Your task to perform on an android device: change the upload size in google photos Image 0: 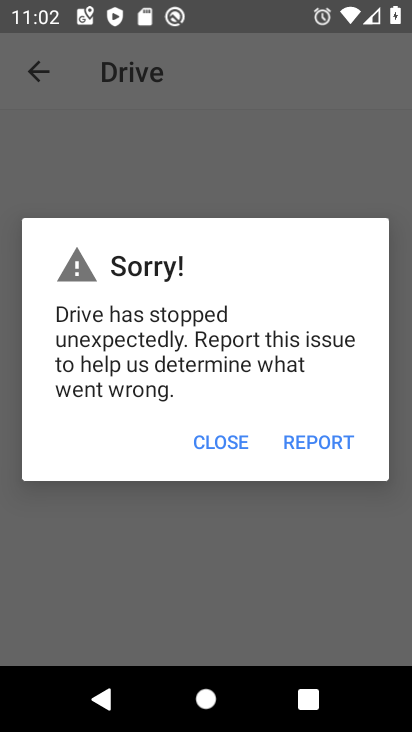
Step 0: press home button
Your task to perform on an android device: change the upload size in google photos Image 1: 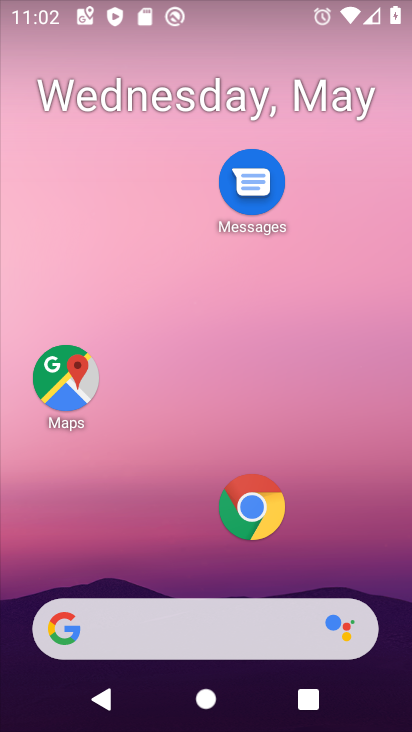
Step 1: drag from (202, 569) to (207, 49)
Your task to perform on an android device: change the upload size in google photos Image 2: 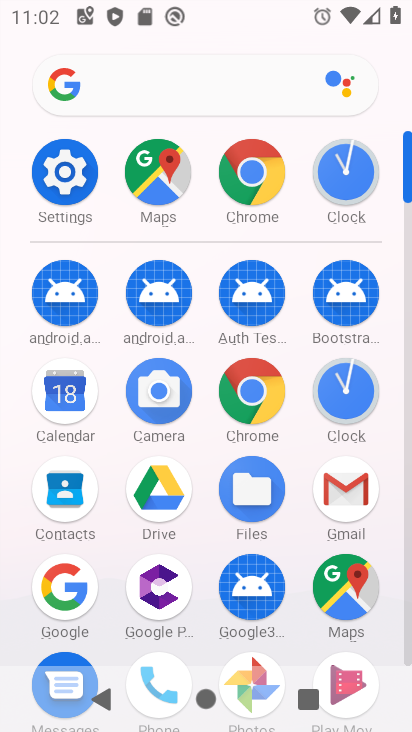
Step 2: drag from (200, 630) to (209, 231)
Your task to perform on an android device: change the upload size in google photos Image 3: 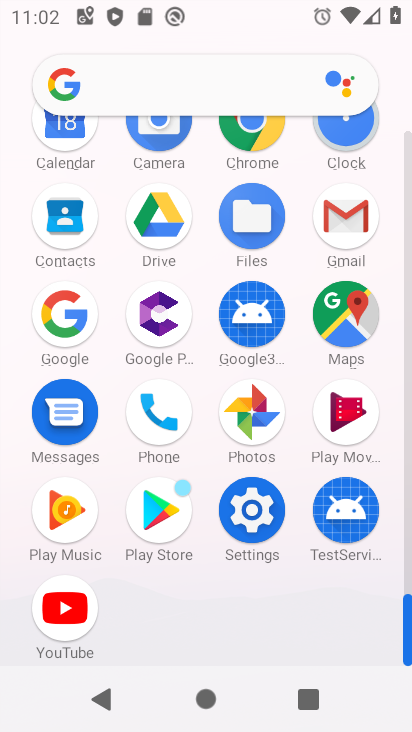
Step 3: click (248, 405)
Your task to perform on an android device: change the upload size in google photos Image 4: 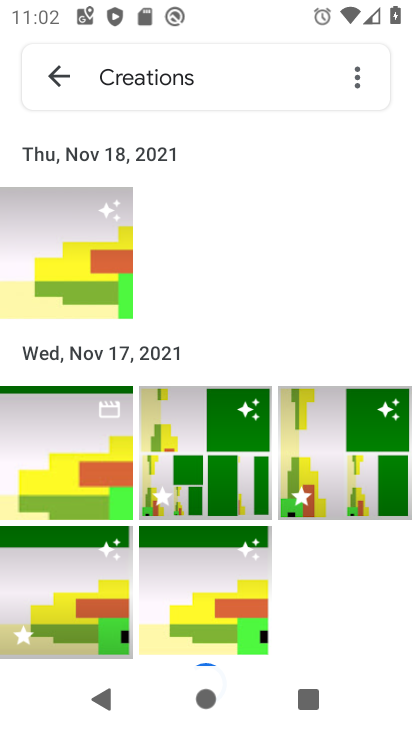
Step 4: click (68, 68)
Your task to perform on an android device: change the upload size in google photos Image 5: 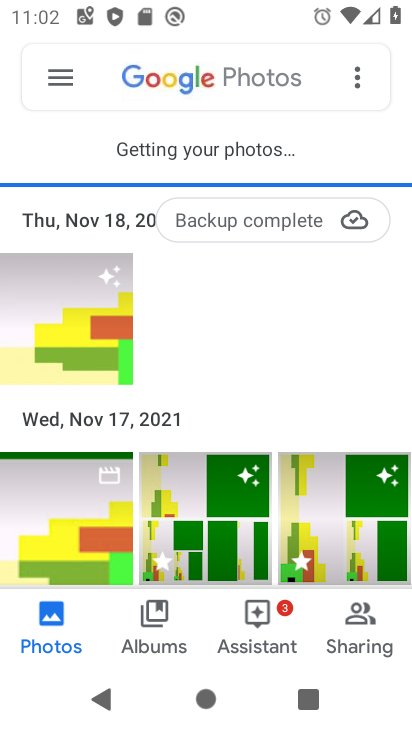
Step 5: click (62, 73)
Your task to perform on an android device: change the upload size in google photos Image 6: 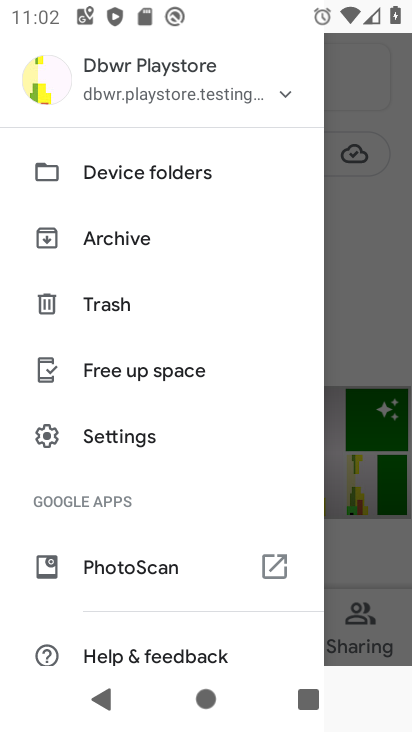
Step 6: click (168, 434)
Your task to perform on an android device: change the upload size in google photos Image 7: 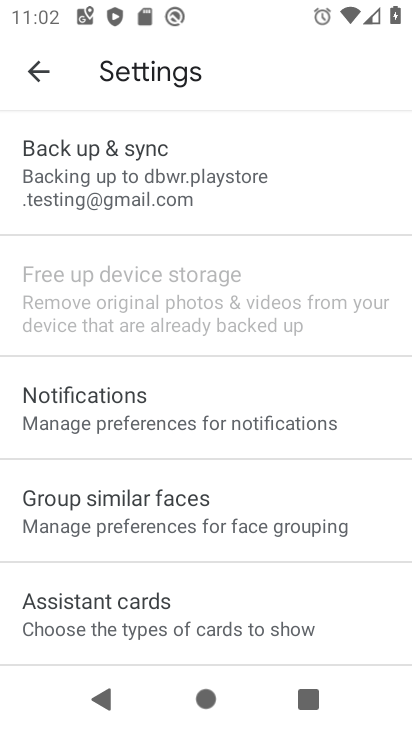
Step 7: click (215, 188)
Your task to perform on an android device: change the upload size in google photos Image 8: 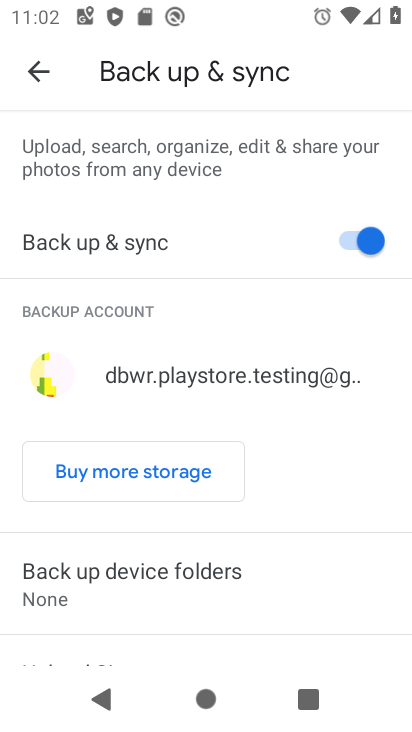
Step 8: drag from (189, 617) to (188, 406)
Your task to perform on an android device: change the upload size in google photos Image 9: 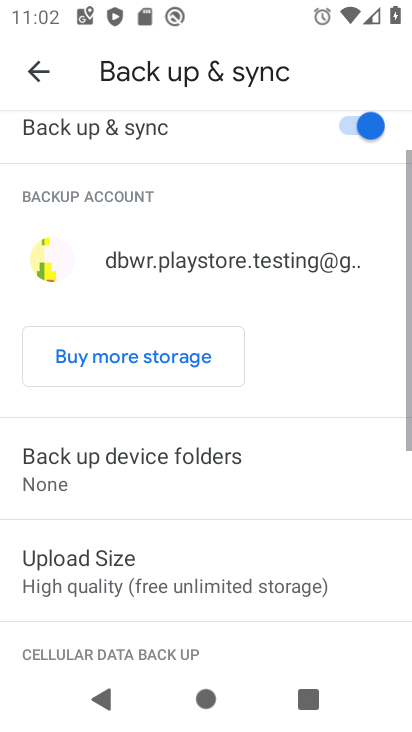
Step 9: drag from (188, 235) to (188, 155)
Your task to perform on an android device: change the upload size in google photos Image 10: 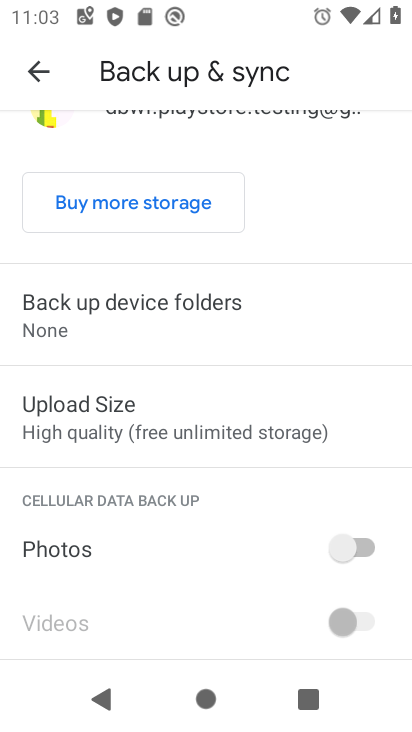
Step 10: click (151, 407)
Your task to perform on an android device: change the upload size in google photos Image 11: 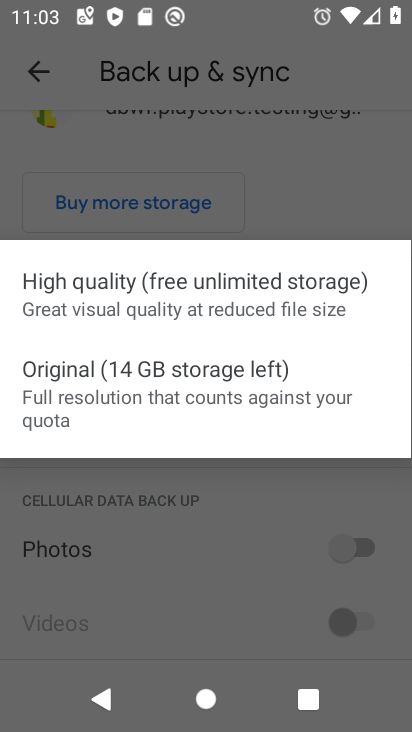
Step 11: click (190, 541)
Your task to perform on an android device: change the upload size in google photos Image 12: 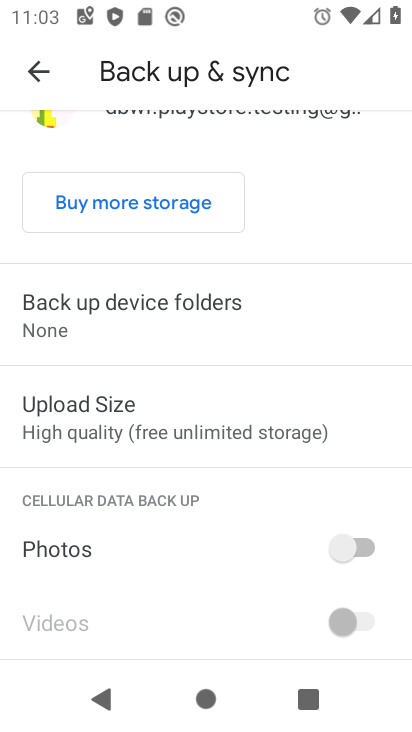
Step 12: click (163, 405)
Your task to perform on an android device: change the upload size in google photos Image 13: 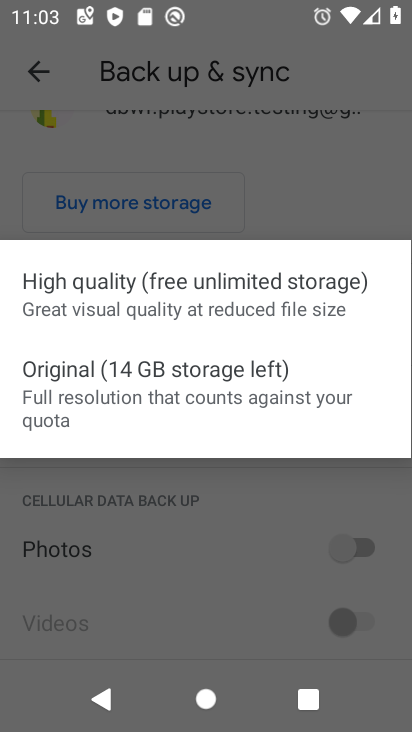
Step 13: click (162, 384)
Your task to perform on an android device: change the upload size in google photos Image 14: 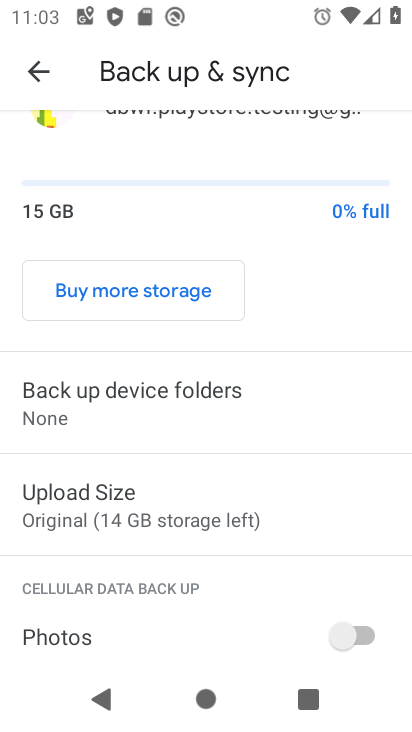
Step 14: task complete